Your task to perform on an android device: delete location history Image 0: 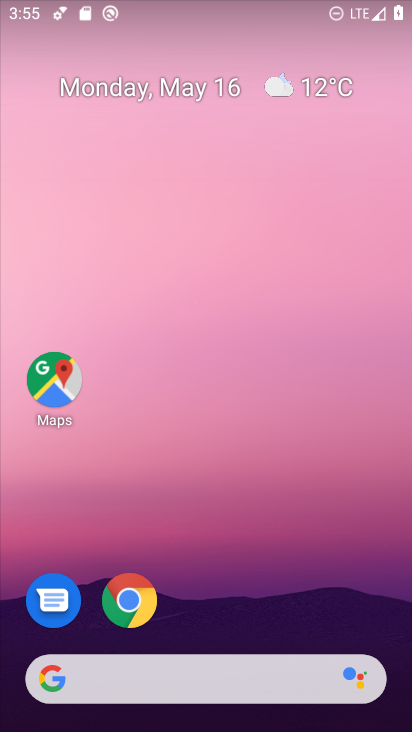
Step 0: drag from (292, 594) to (268, 148)
Your task to perform on an android device: delete location history Image 1: 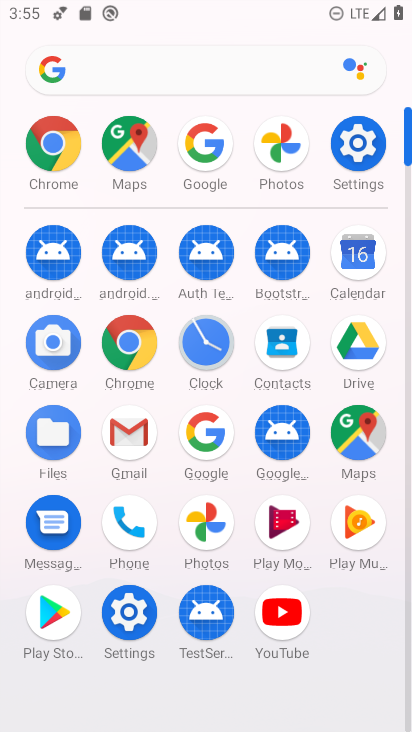
Step 1: click (358, 432)
Your task to perform on an android device: delete location history Image 2: 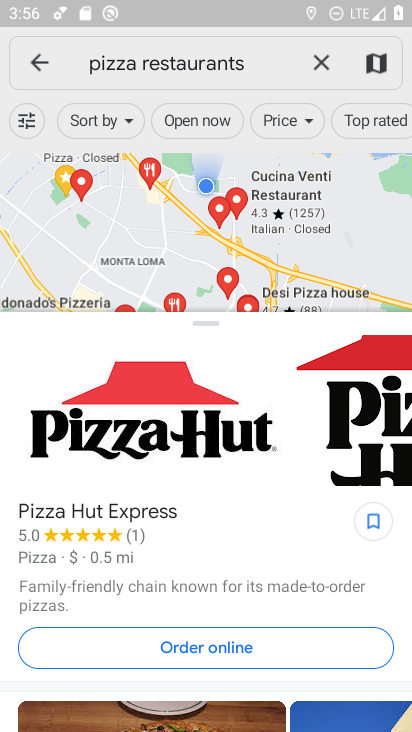
Step 2: click (34, 63)
Your task to perform on an android device: delete location history Image 3: 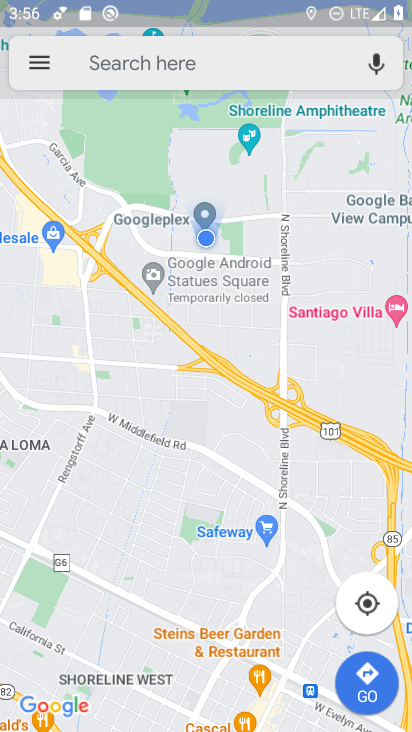
Step 3: click (33, 61)
Your task to perform on an android device: delete location history Image 4: 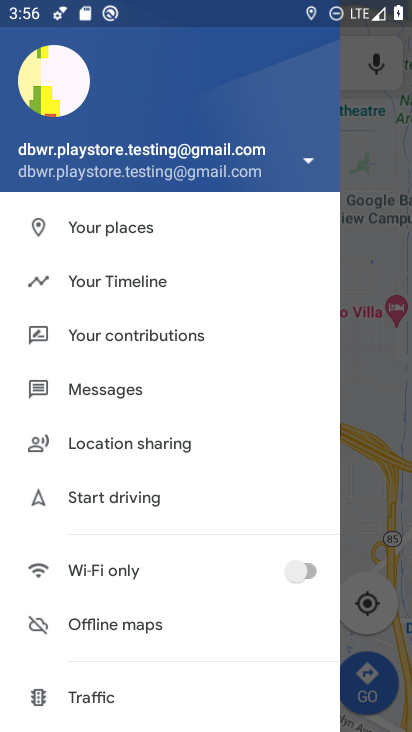
Step 4: drag from (191, 561) to (244, 16)
Your task to perform on an android device: delete location history Image 5: 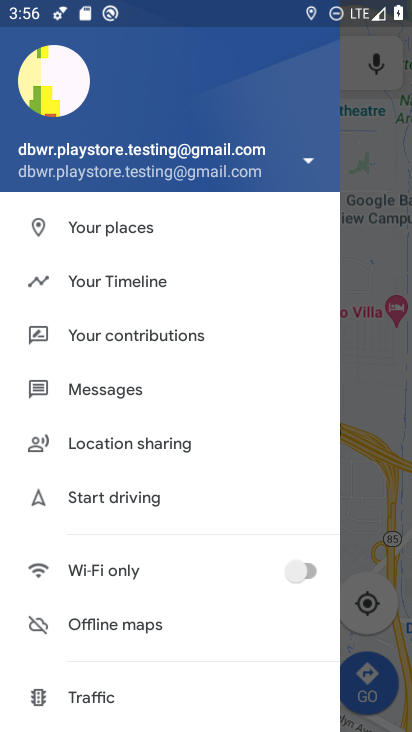
Step 5: drag from (160, 596) to (254, 42)
Your task to perform on an android device: delete location history Image 6: 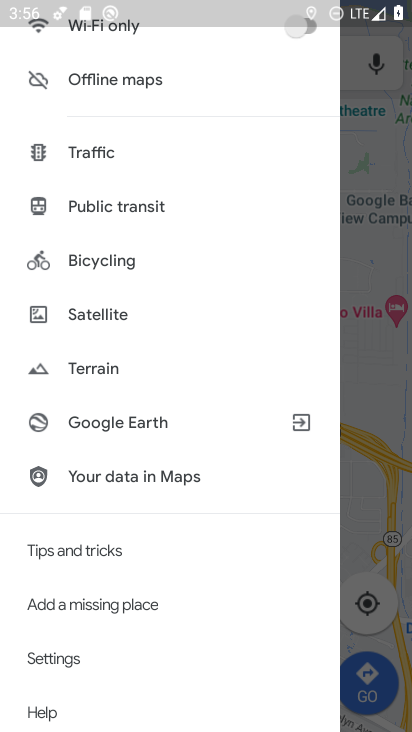
Step 6: click (37, 658)
Your task to perform on an android device: delete location history Image 7: 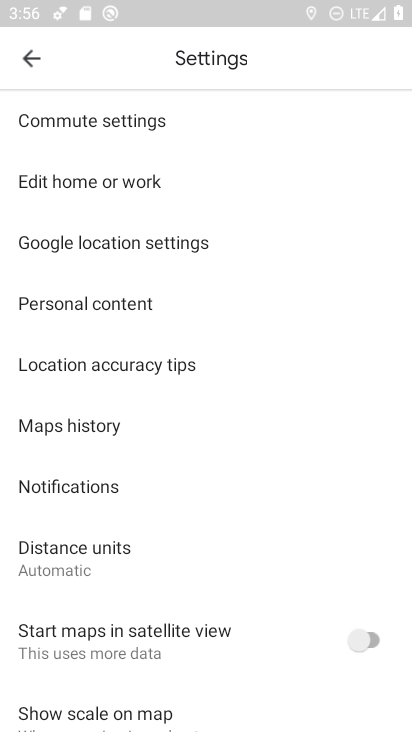
Step 7: click (112, 418)
Your task to perform on an android device: delete location history Image 8: 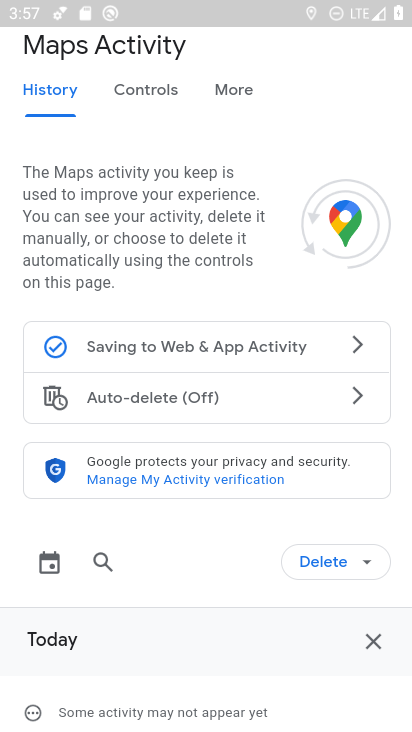
Step 8: click (327, 566)
Your task to perform on an android device: delete location history Image 9: 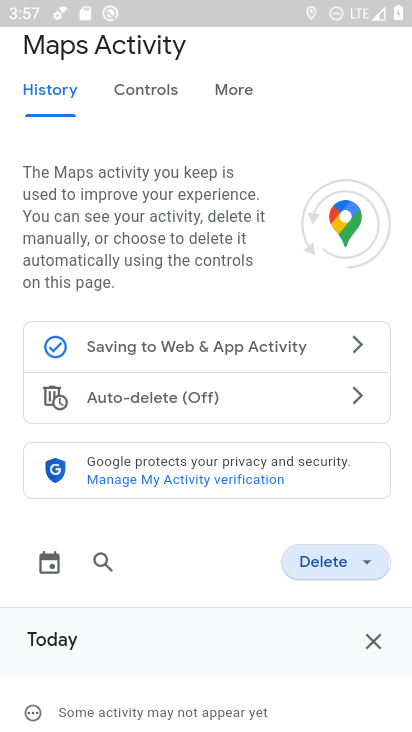
Step 9: click (329, 553)
Your task to perform on an android device: delete location history Image 10: 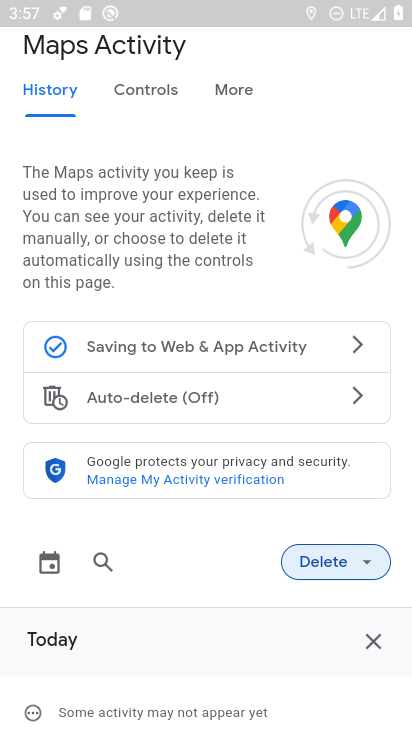
Step 10: click (328, 553)
Your task to perform on an android device: delete location history Image 11: 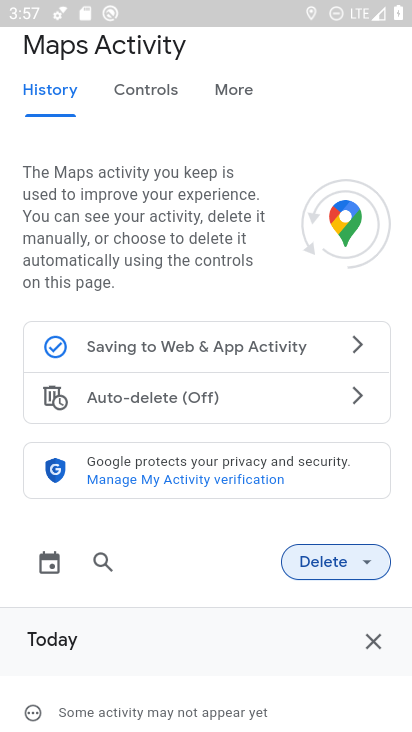
Step 11: click (350, 582)
Your task to perform on an android device: delete location history Image 12: 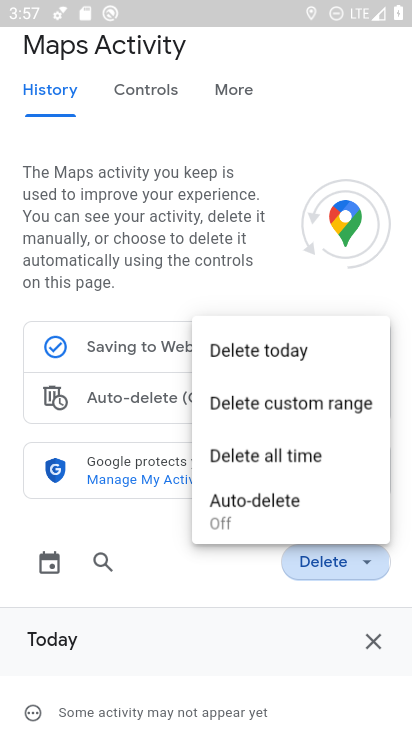
Step 12: click (373, 551)
Your task to perform on an android device: delete location history Image 13: 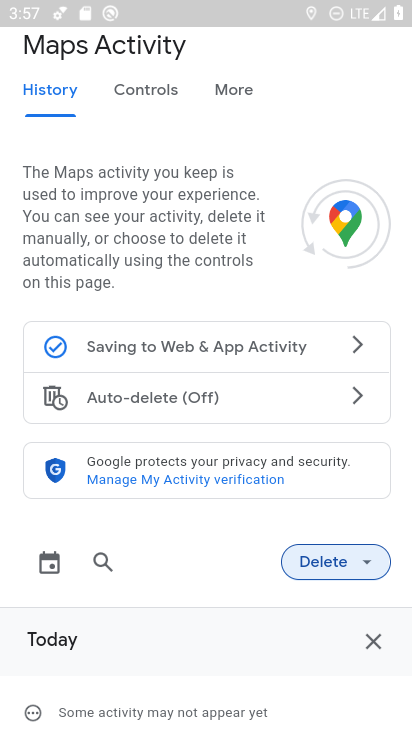
Step 13: click (375, 570)
Your task to perform on an android device: delete location history Image 14: 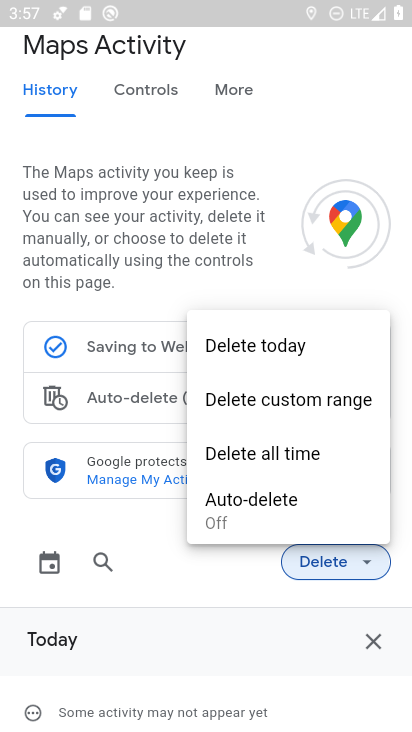
Step 14: click (319, 461)
Your task to perform on an android device: delete location history Image 15: 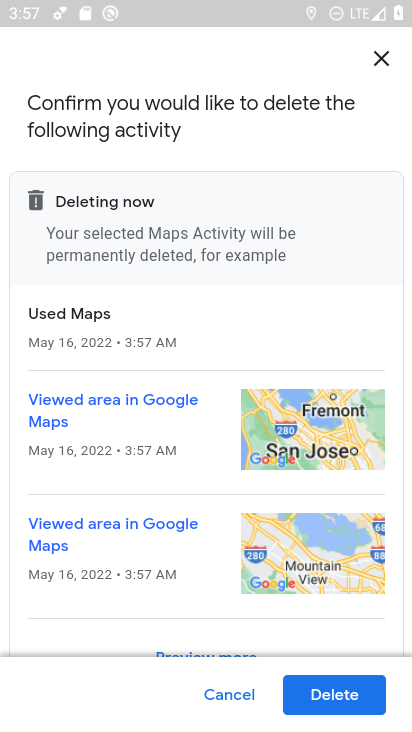
Step 15: click (334, 681)
Your task to perform on an android device: delete location history Image 16: 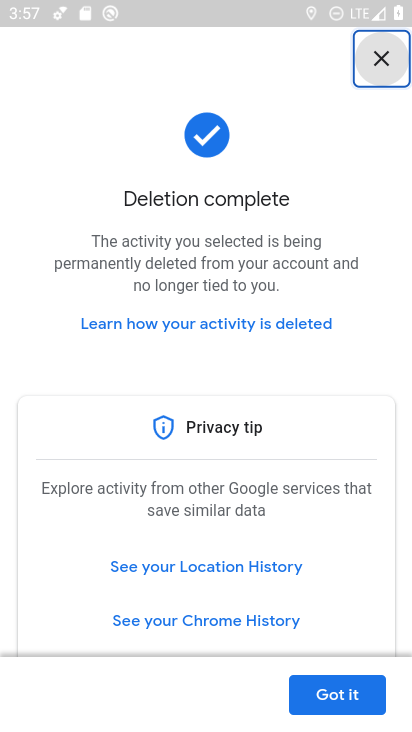
Step 16: task complete